Your task to perform on an android device: Open the map Image 0: 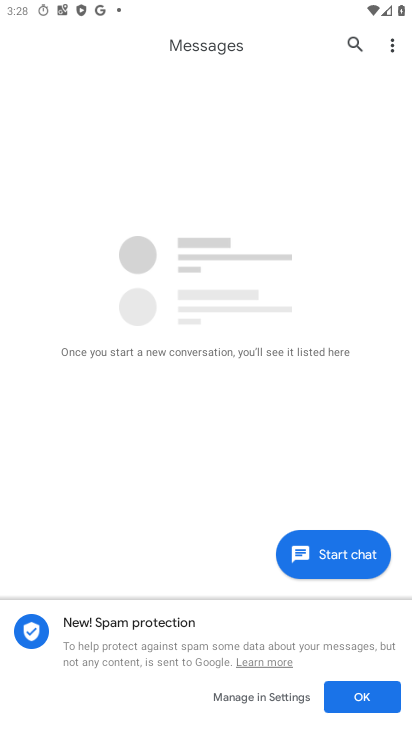
Step 0: press home button
Your task to perform on an android device: Open the map Image 1: 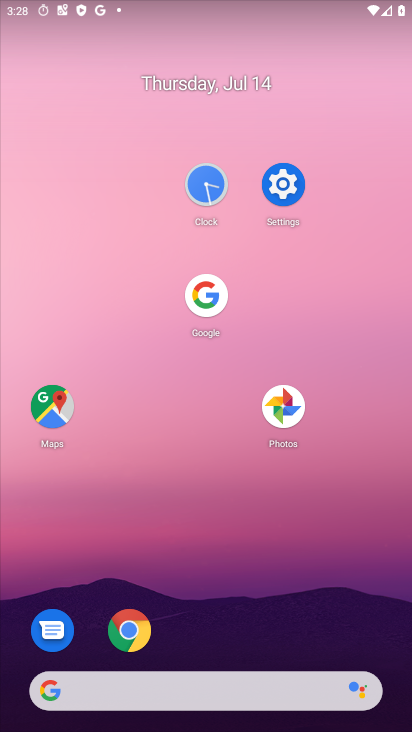
Step 1: click (58, 400)
Your task to perform on an android device: Open the map Image 2: 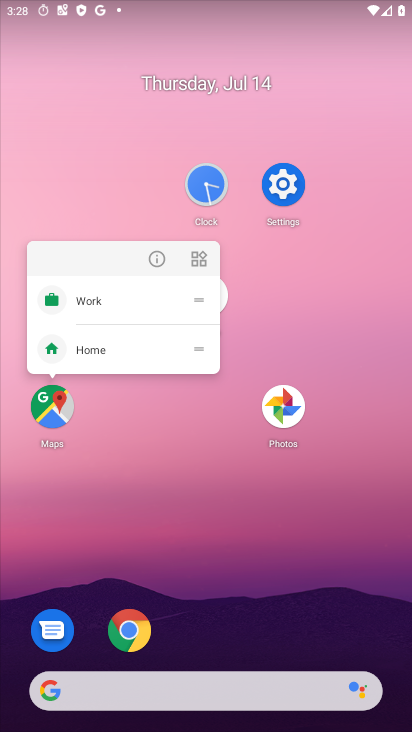
Step 2: click (55, 394)
Your task to perform on an android device: Open the map Image 3: 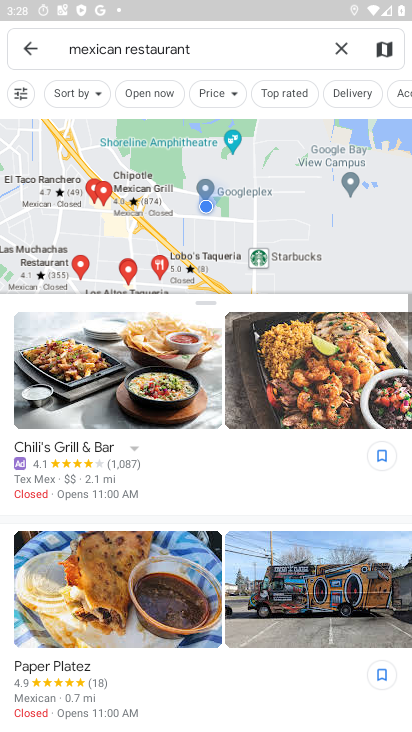
Step 3: task complete